Your task to perform on an android device: Add razer naga to the cart on walmart, then select checkout. Image 0: 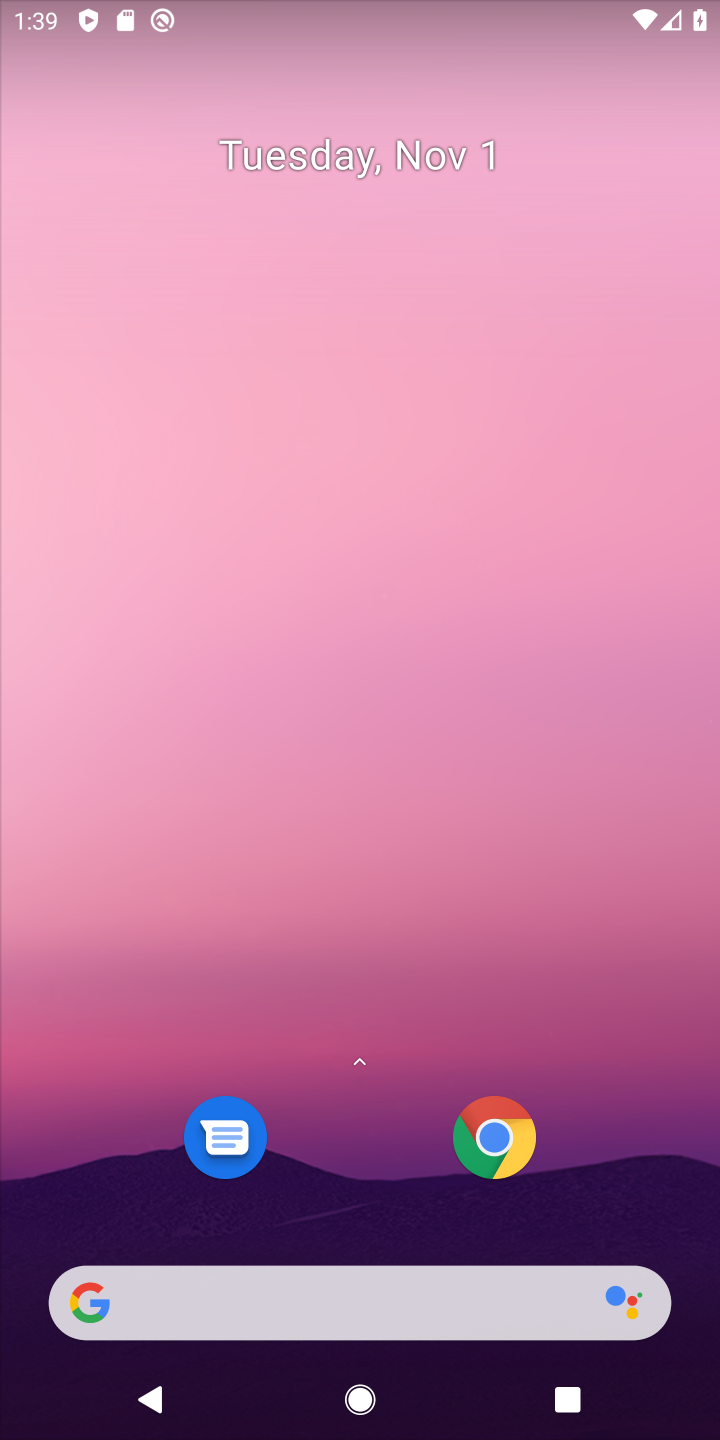
Step 0: click (409, 1289)
Your task to perform on an android device: Add razer naga to the cart on walmart, then select checkout. Image 1: 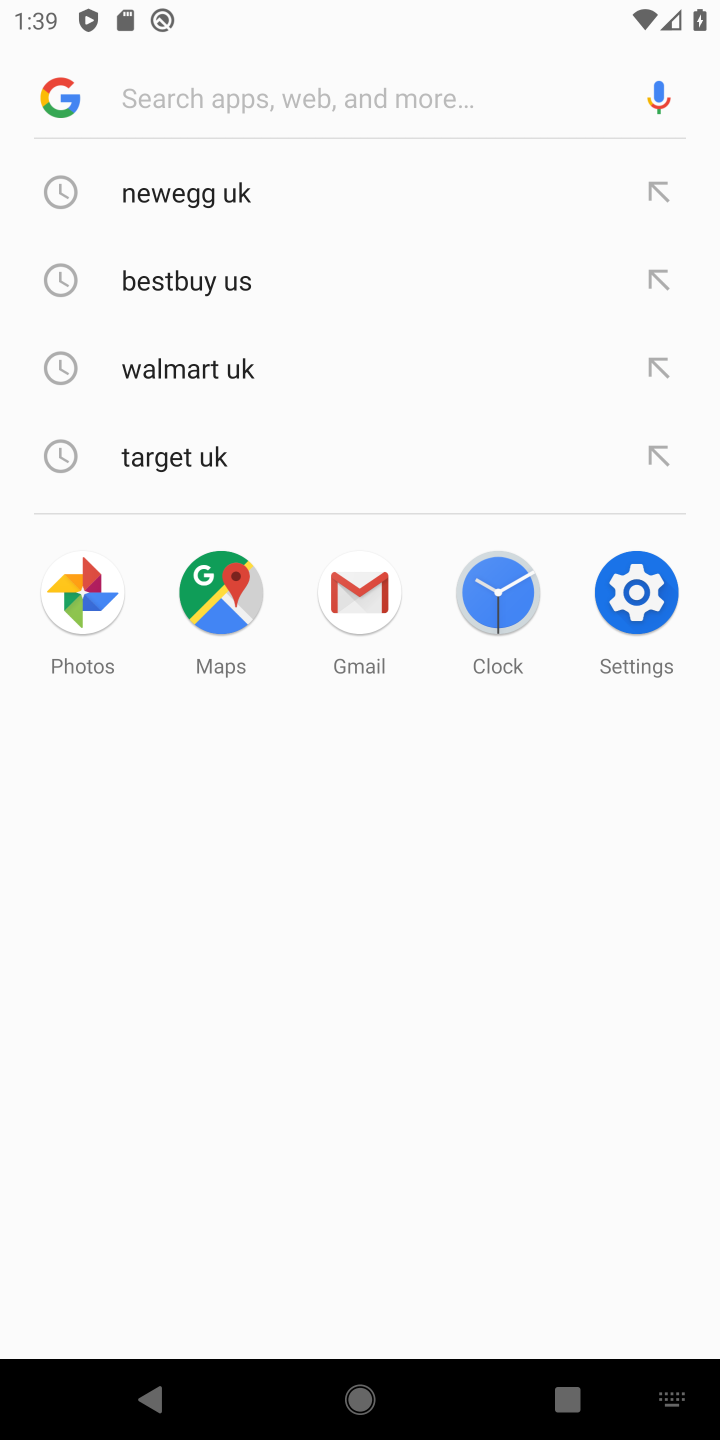
Step 1: type "walmart"
Your task to perform on an android device: Add razer naga to the cart on walmart, then select checkout. Image 2: 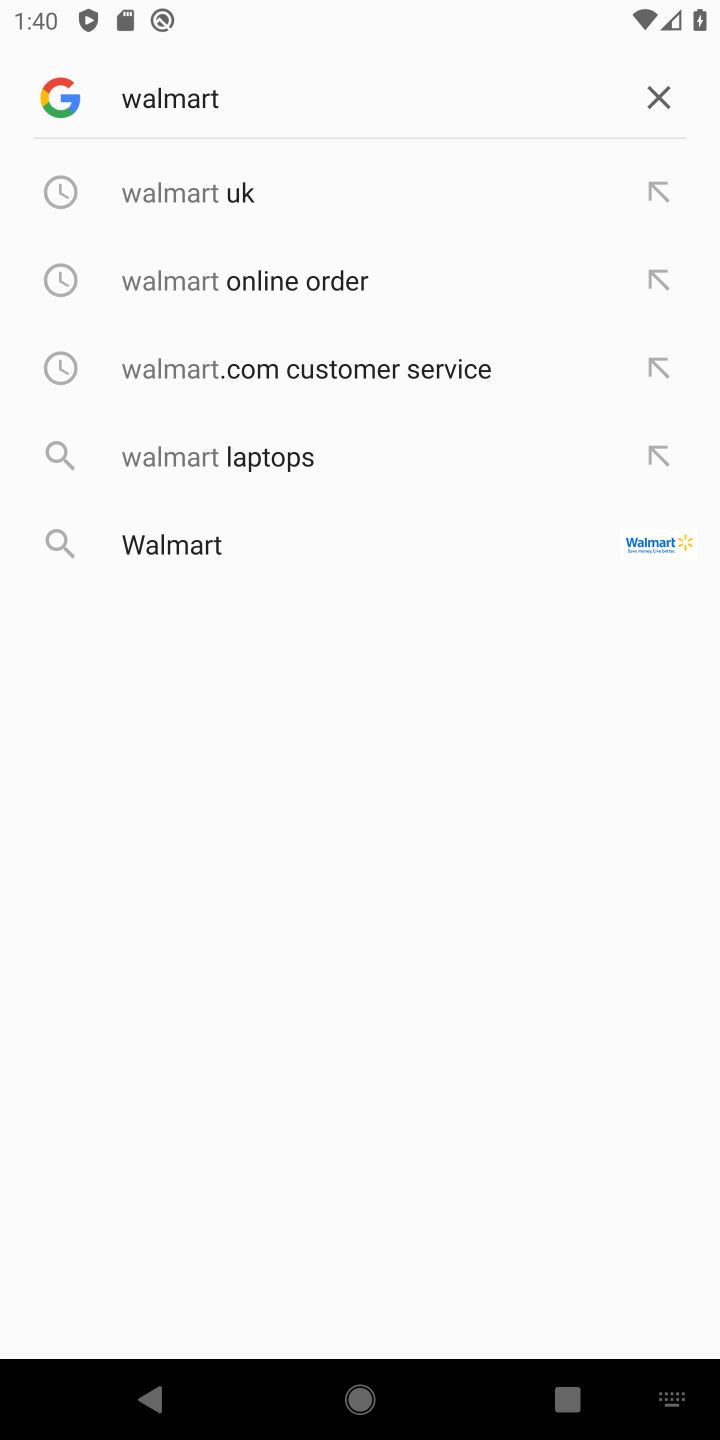
Step 2: click (319, 219)
Your task to perform on an android device: Add razer naga to the cart on walmart, then select checkout. Image 3: 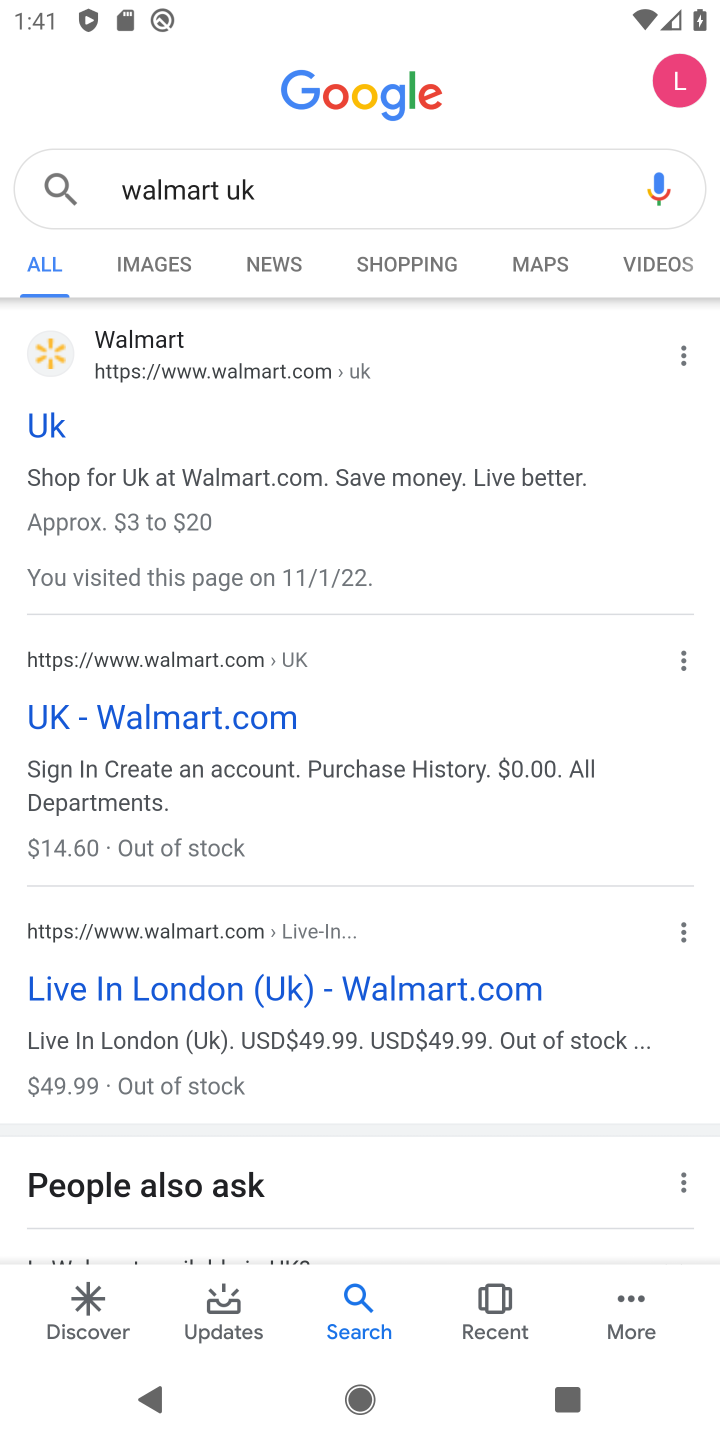
Step 3: click (24, 431)
Your task to perform on an android device: Add razer naga to the cart on walmart, then select checkout. Image 4: 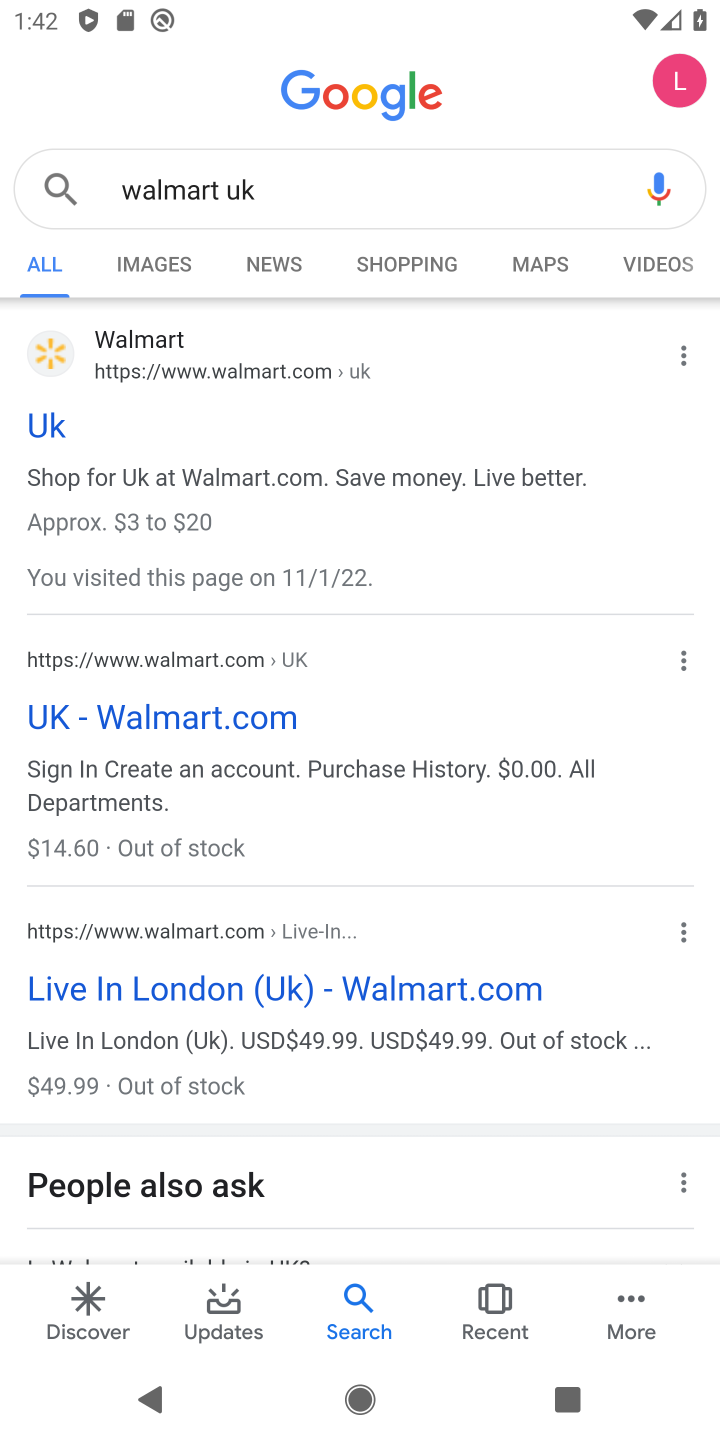
Step 4: click (24, 431)
Your task to perform on an android device: Add razer naga to the cart on walmart, then select checkout. Image 5: 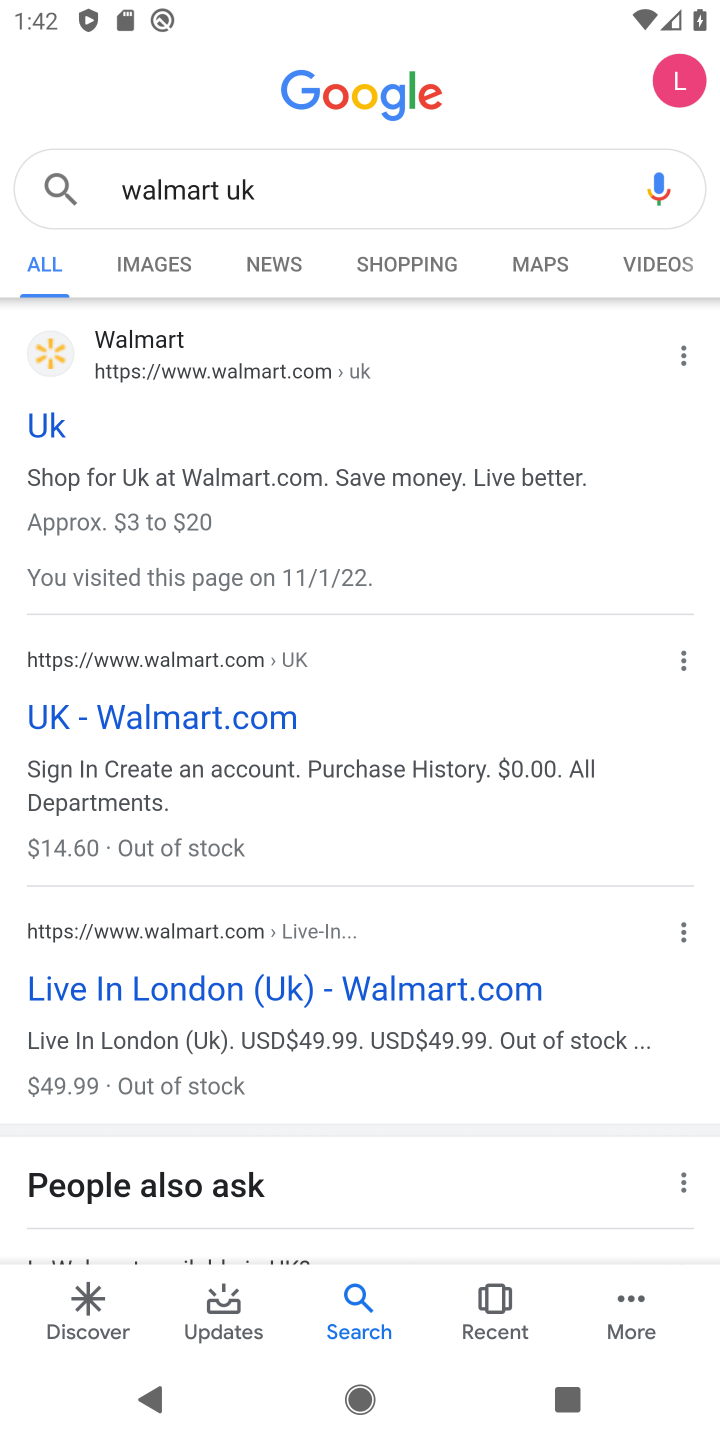
Step 5: click (62, 433)
Your task to perform on an android device: Add razer naga to the cart on walmart, then select checkout. Image 6: 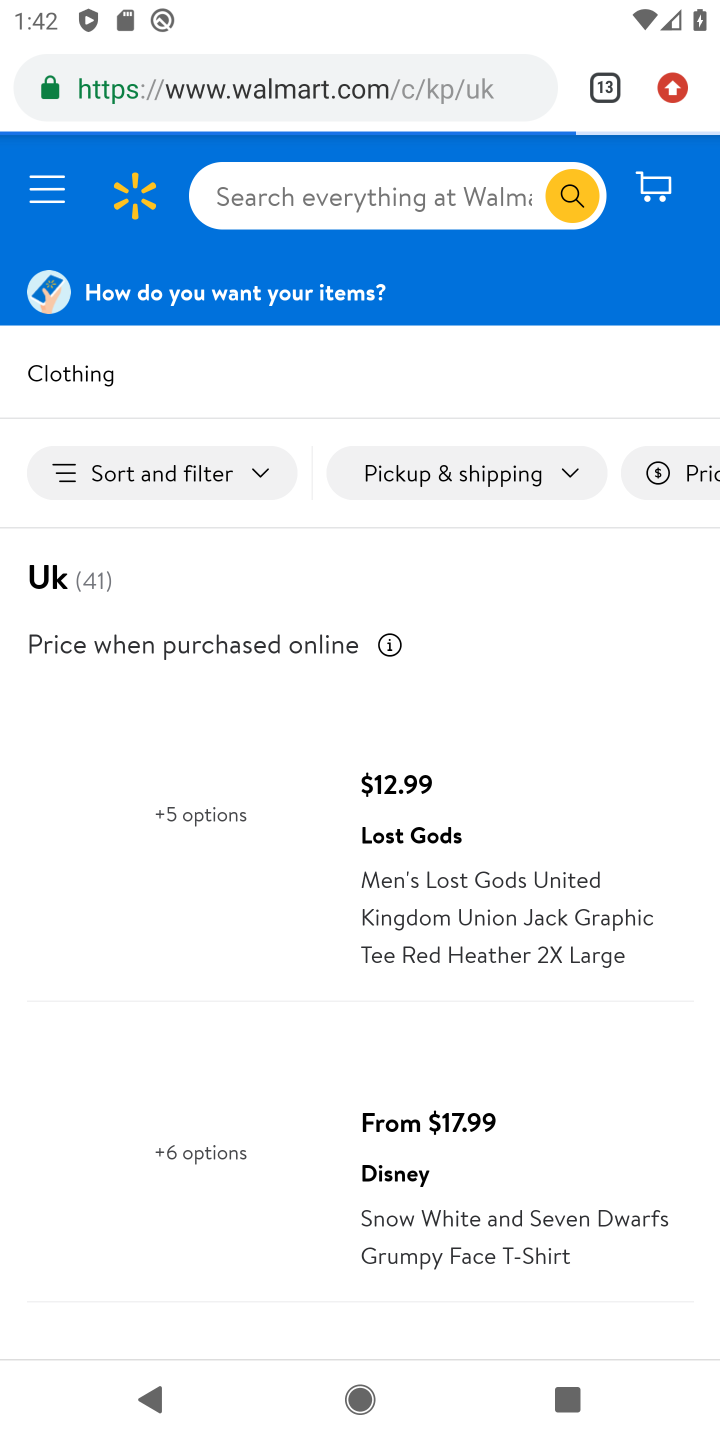
Step 6: click (404, 799)
Your task to perform on an android device: Add razer naga to the cart on walmart, then select checkout. Image 7: 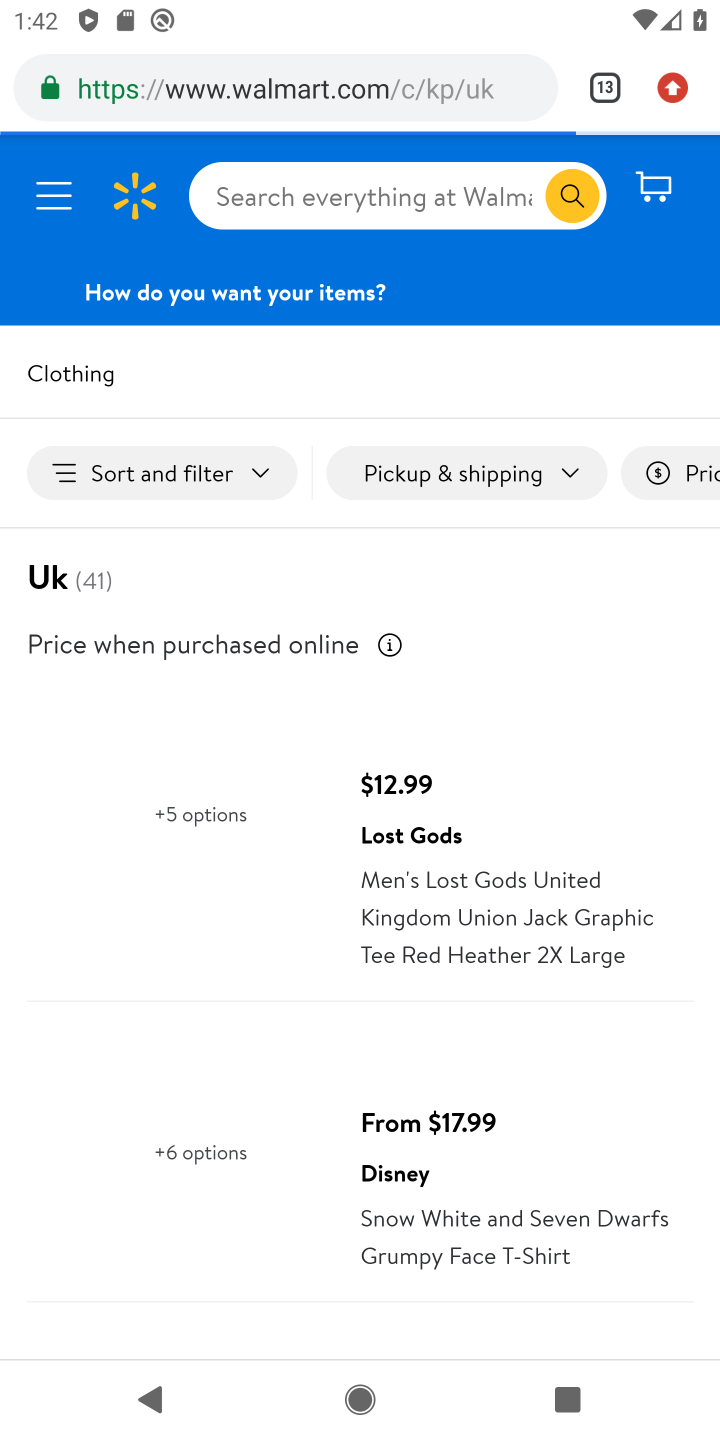
Step 7: task complete